Your task to perform on an android device: open app "Booking.com: Hotels and more" (install if not already installed) and enter user name: "misting@outlook.com" and password: "blandly" Image 0: 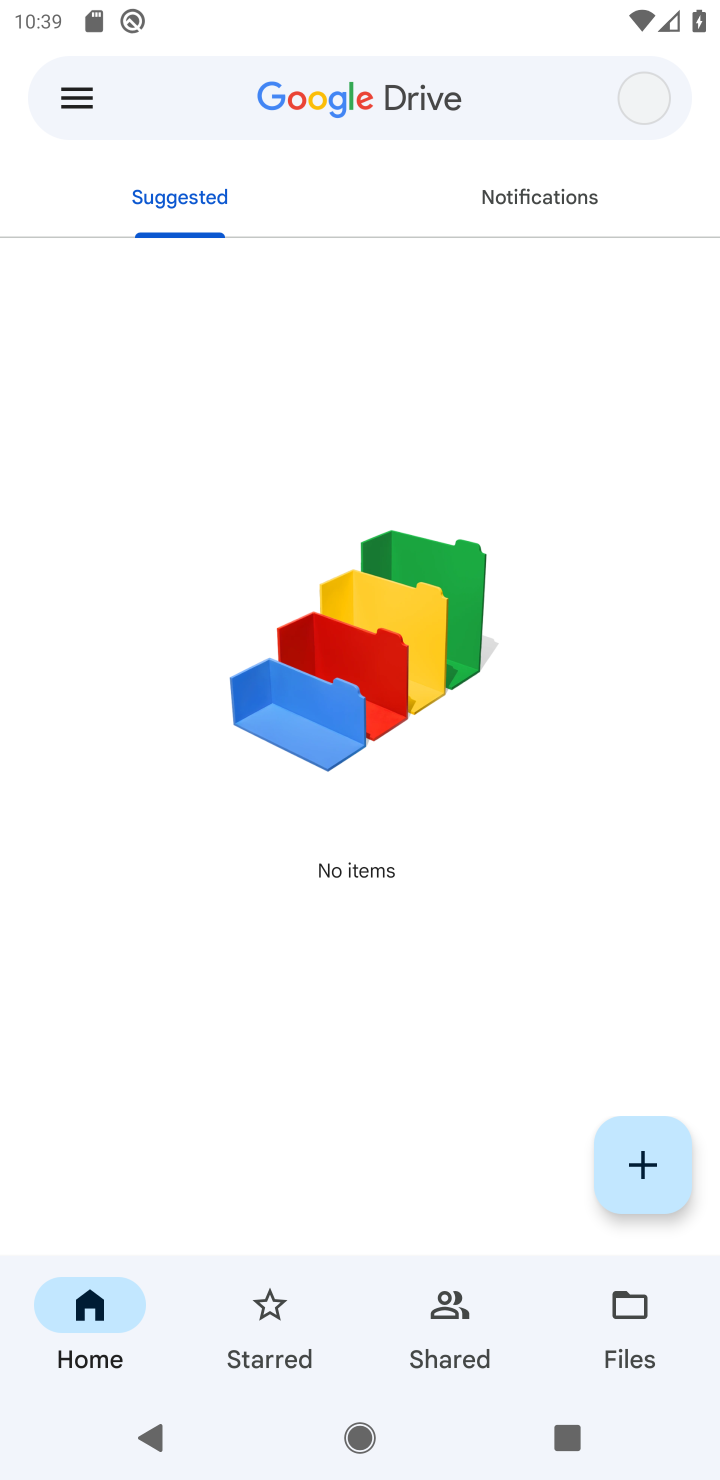
Step 0: press home button
Your task to perform on an android device: open app "Booking.com: Hotels and more" (install if not already installed) and enter user name: "misting@outlook.com" and password: "blandly" Image 1: 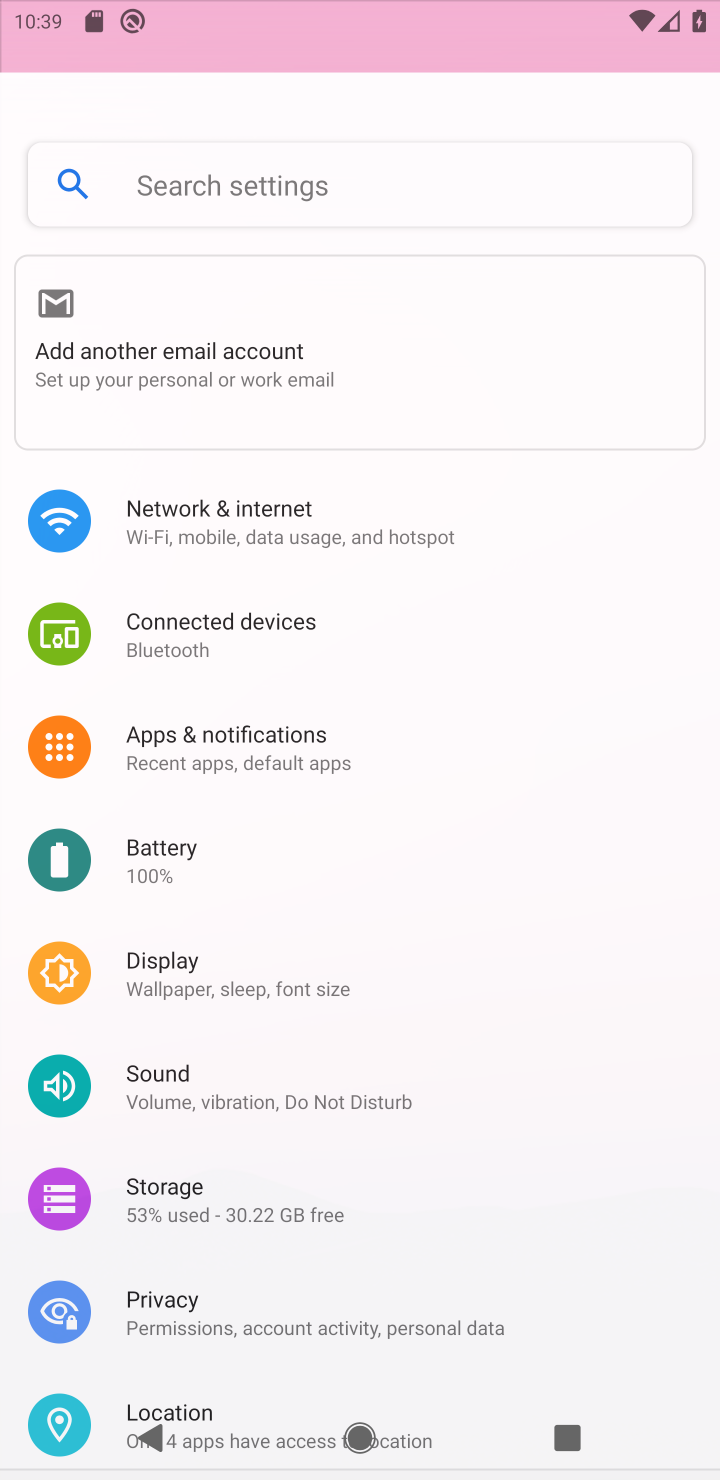
Step 1: press home button
Your task to perform on an android device: open app "Booking.com: Hotels and more" (install if not already installed) and enter user name: "misting@outlook.com" and password: "blandly" Image 2: 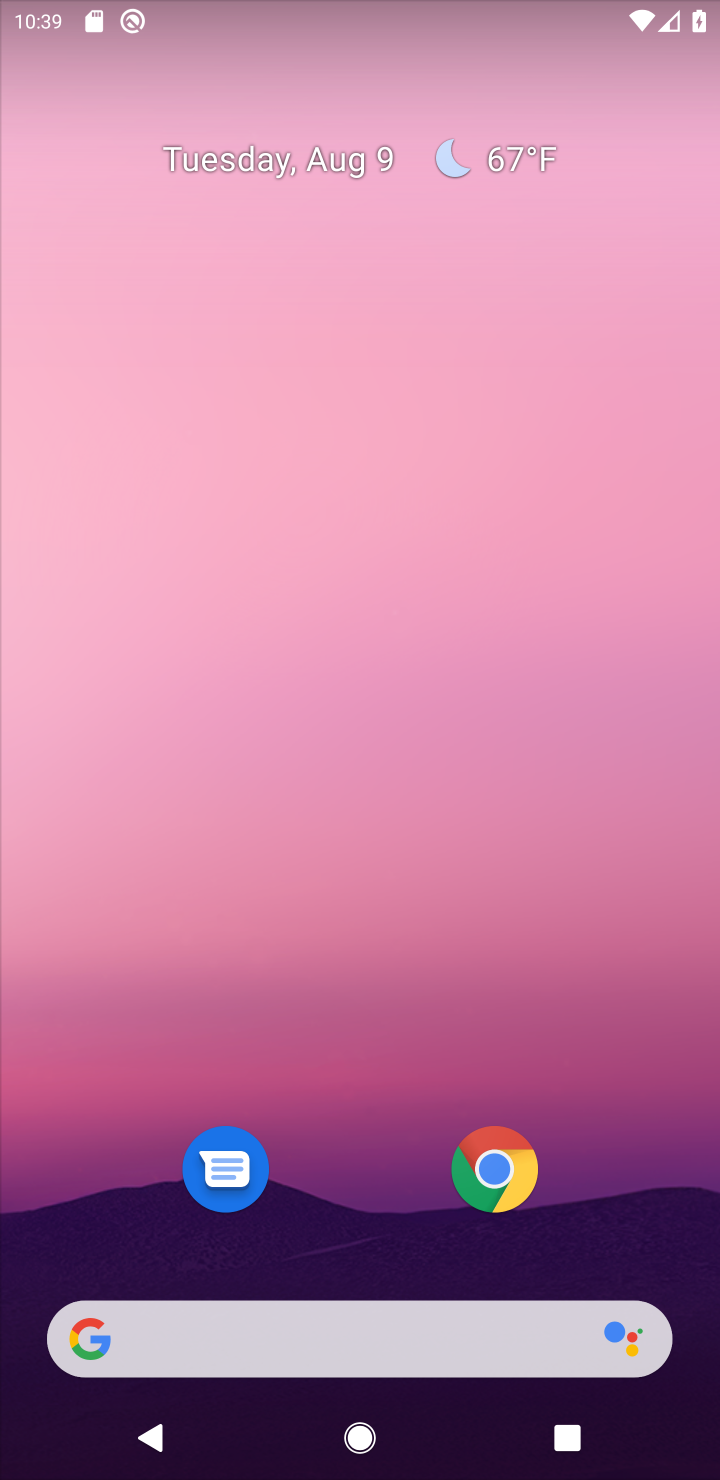
Step 2: drag from (614, 1201) to (656, 90)
Your task to perform on an android device: open app "Booking.com: Hotels and more" (install if not already installed) and enter user name: "misting@outlook.com" and password: "blandly" Image 3: 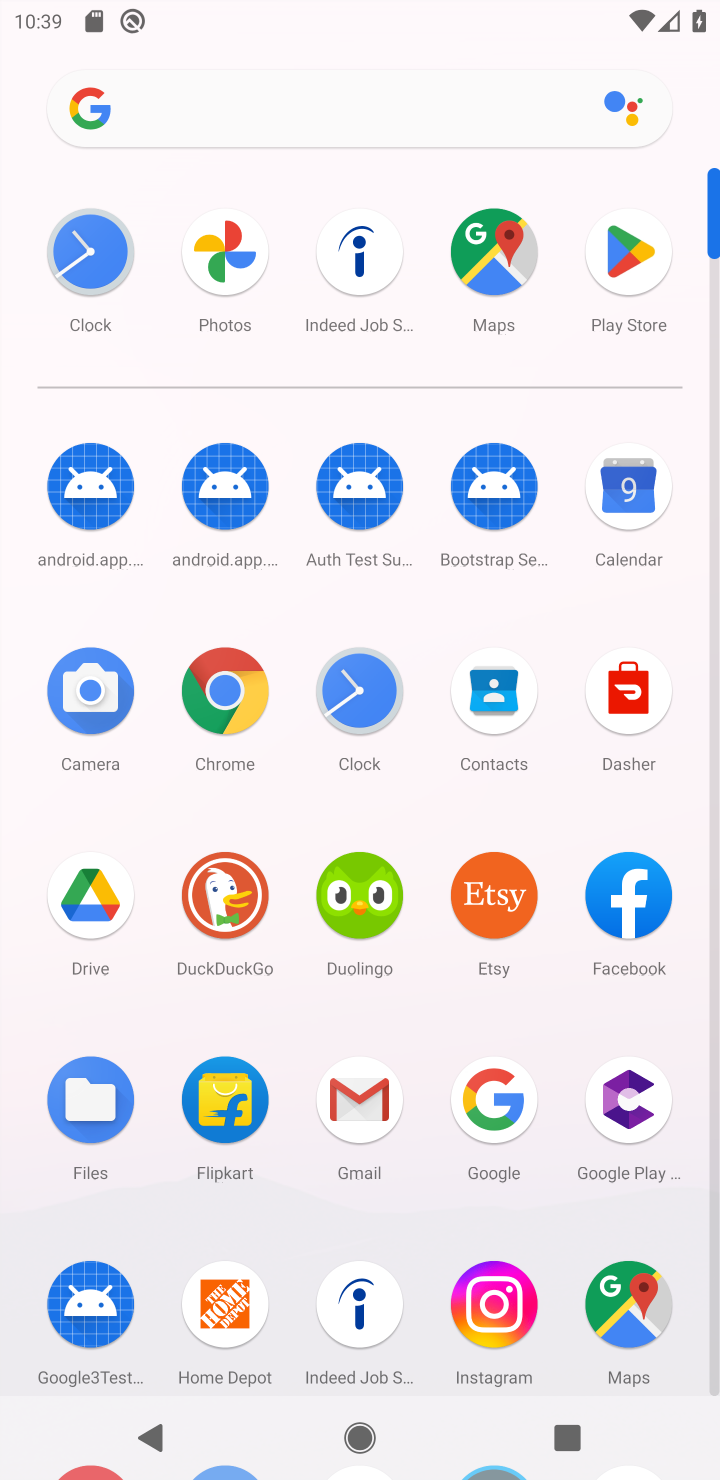
Step 3: click (623, 262)
Your task to perform on an android device: open app "Booking.com: Hotels and more" (install if not already installed) and enter user name: "misting@outlook.com" and password: "blandly" Image 4: 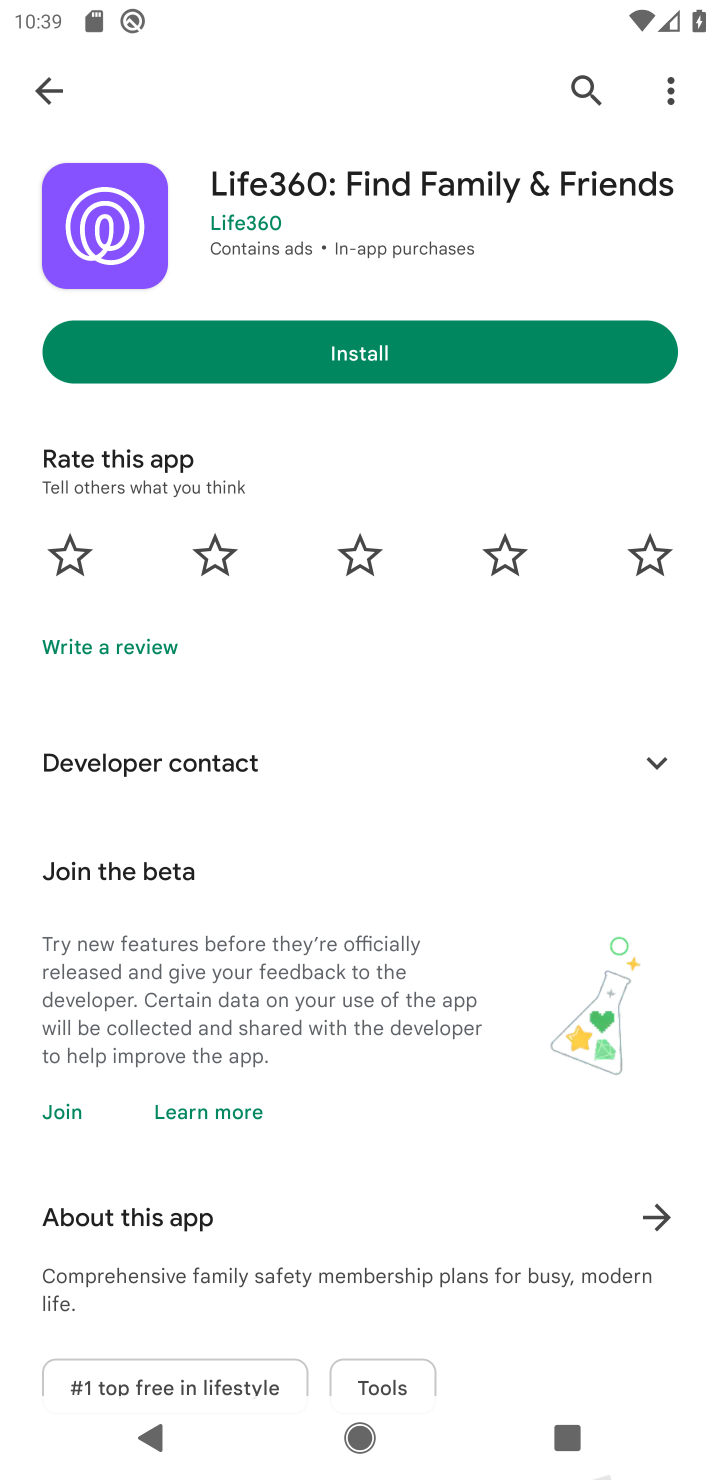
Step 4: click (586, 84)
Your task to perform on an android device: open app "Booking.com: Hotels and more" (install if not already installed) and enter user name: "misting@outlook.com" and password: "blandly" Image 5: 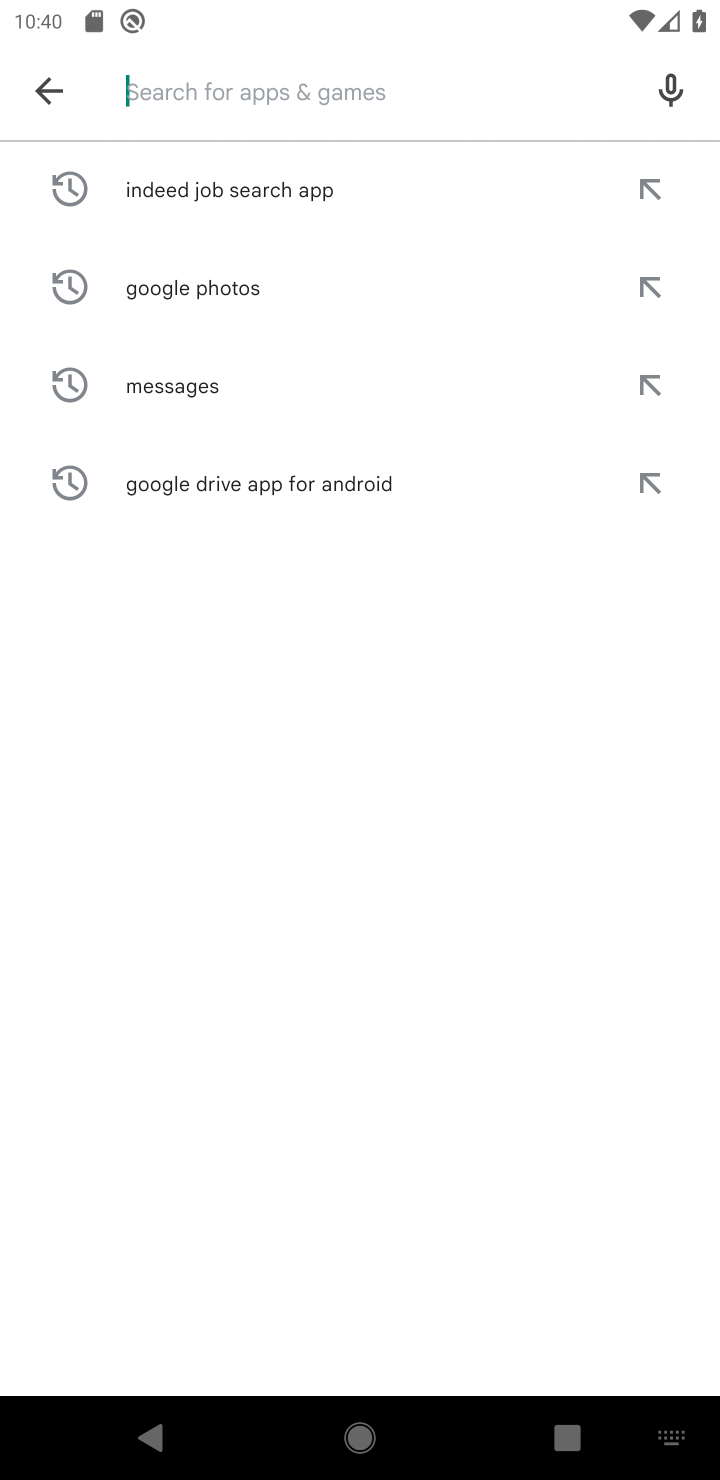
Step 5: type "Booking.com: Hotels and more"
Your task to perform on an android device: open app "Booking.com: Hotels and more" (install if not already installed) and enter user name: "misting@outlook.com" and password: "blandly" Image 6: 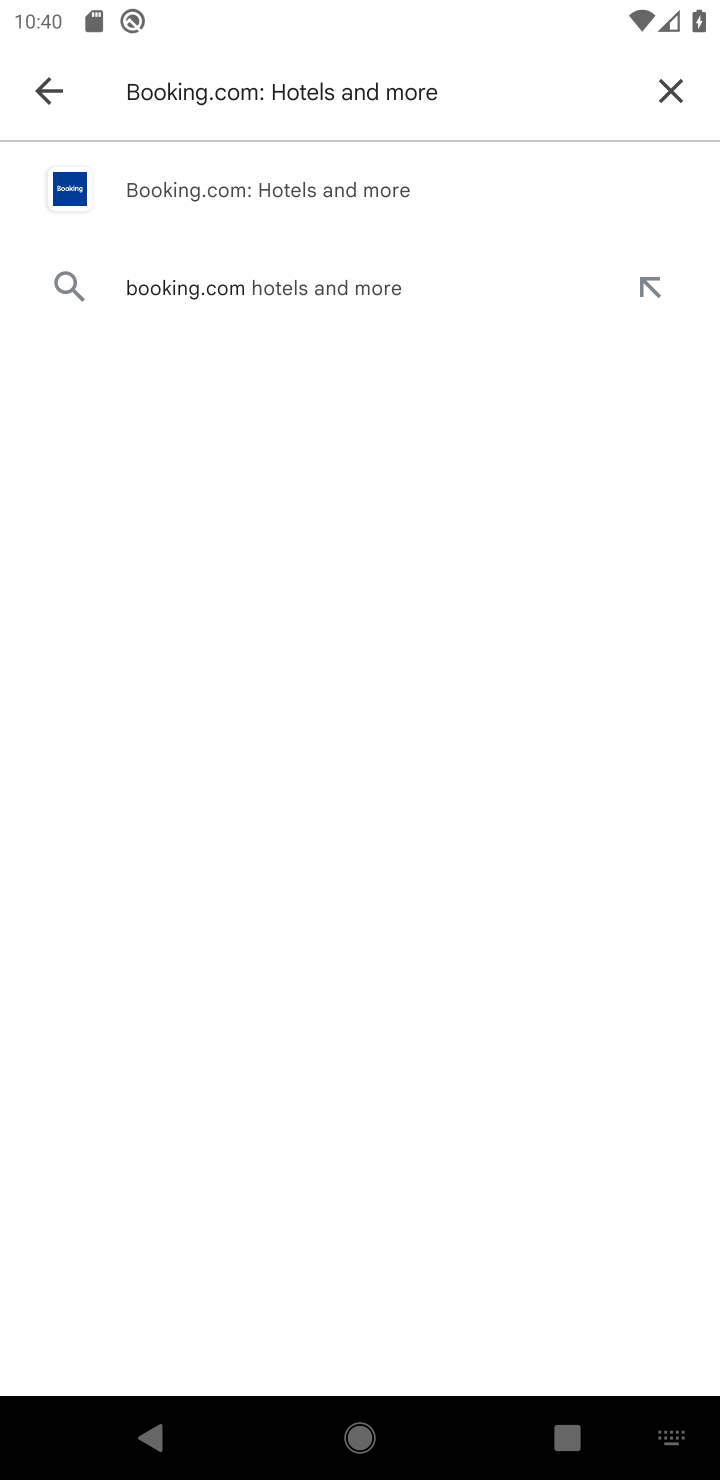
Step 6: click (286, 194)
Your task to perform on an android device: open app "Booking.com: Hotels and more" (install if not already installed) and enter user name: "misting@outlook.com" and password: "blandly" Image 7: 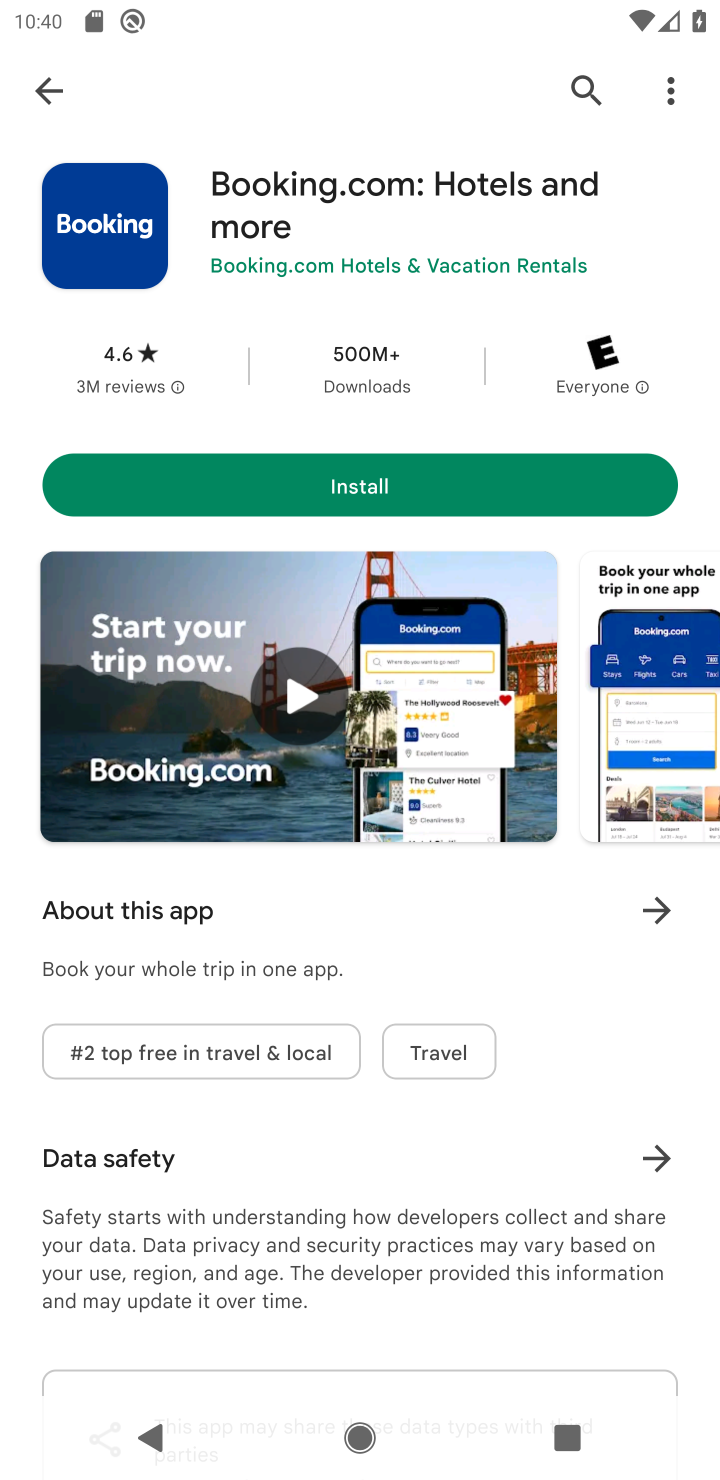
Step 7: click (455, 482)
Your task to perform on an android device: open app "Booking.com: Hotels and more" (install if not already installed) and enter user name: "misting@outlook.com" and password: "blandly" Image 8: 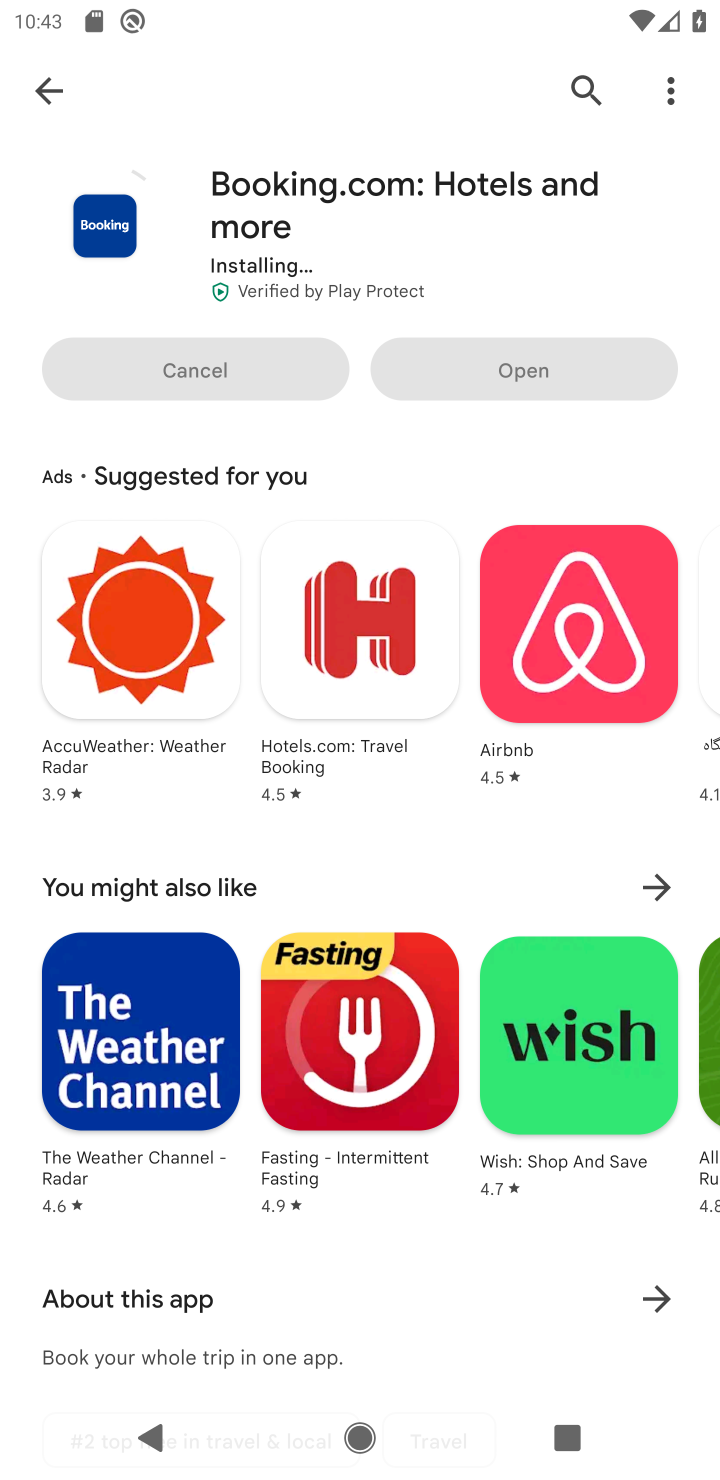
Step 8: task complete